Your task to perform on an android device: Go to Maps Image 0: 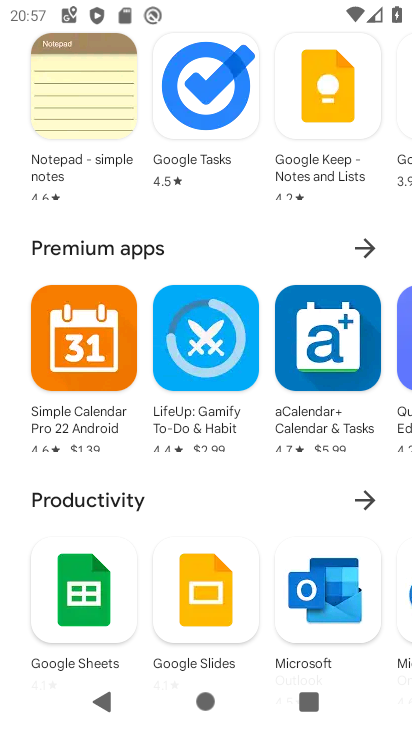
Step 0: press home button
Your task to perform on an android device: Go to Maps Image 1: 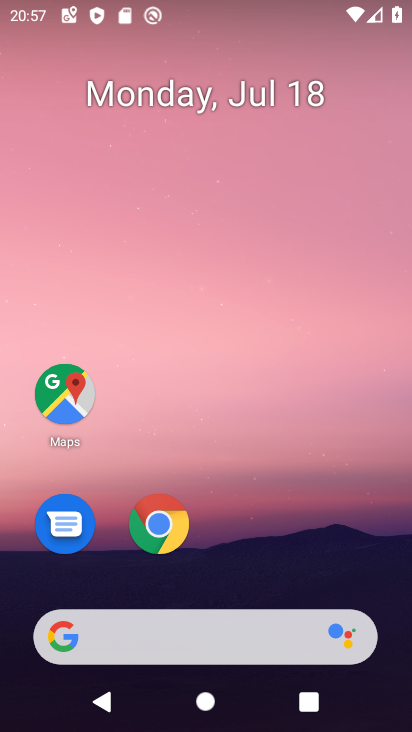
Step 1: click (64, 393)
Your task to perform on an android device: Go to Maps Image 2: 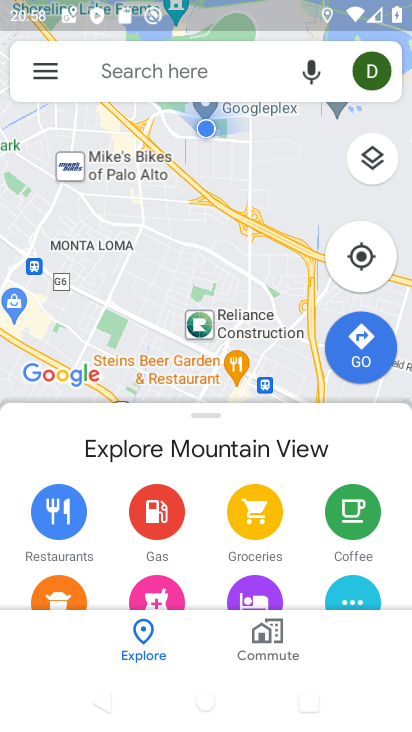
Step 2: task complete